Your task to perform on an android device: Open calendar and show me the second week of next month Image 0: 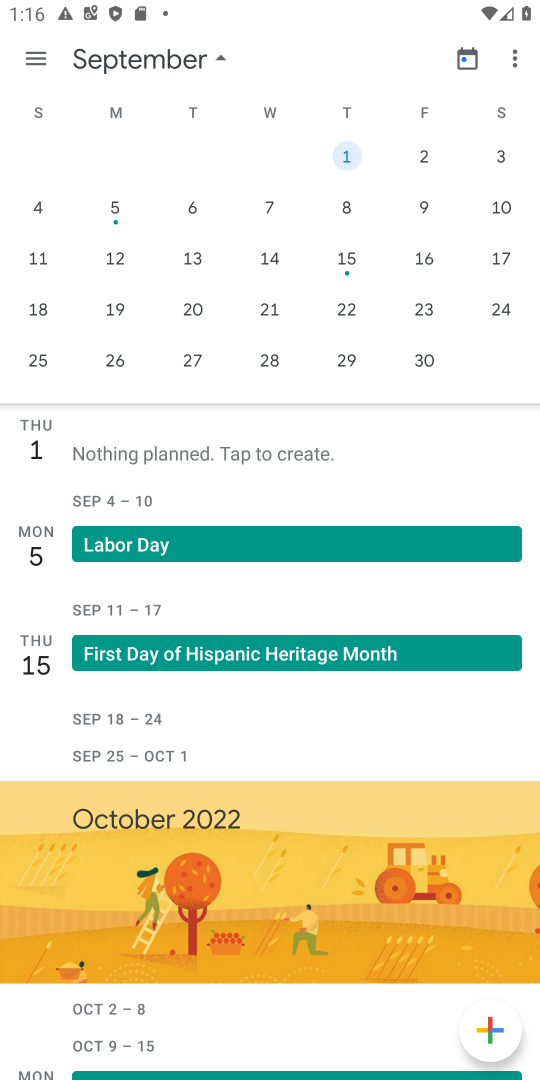
Step 0: click (48, 212)
Your task to perform on an android device: Open calendar and show me the second week of next month Image 1: 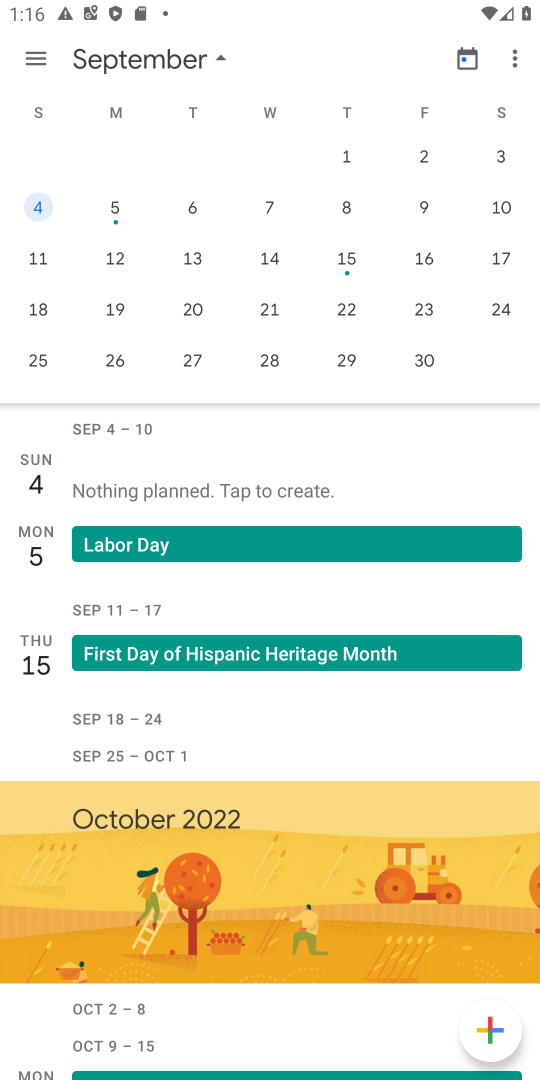
Step 1: task complete